Your task to perform on an android device: Go to Reddit.com Image 0: 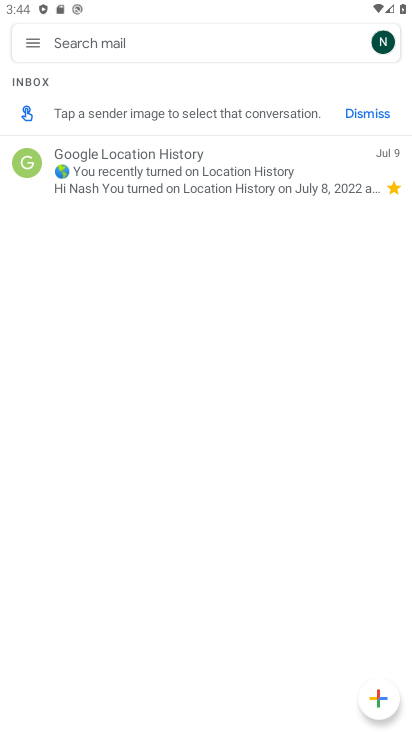
Step 0: press home button
Your task to perform on an android device: Go to Reddit.com Image 1: 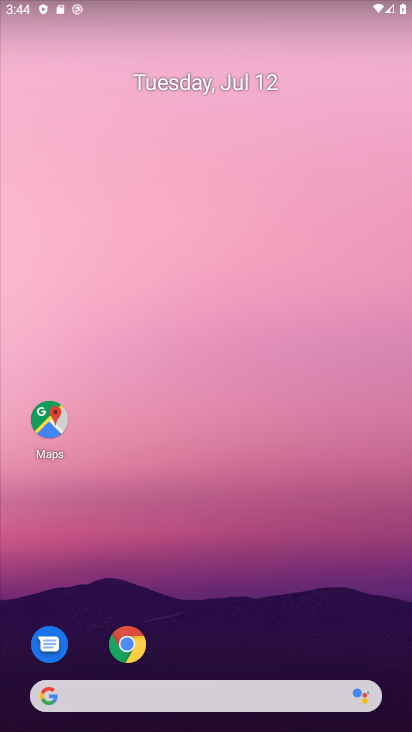
Step 1: click (121, 643)
Your task to perform on an android device: Go to Reddit.com Image 2: 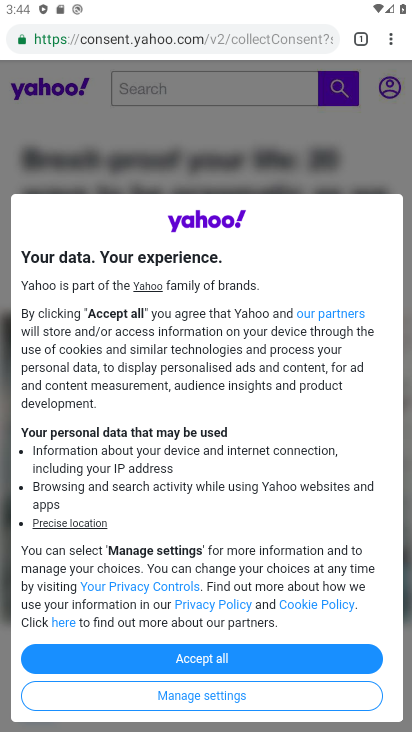
Step 2: click (212, 41)
Your task to perform on an android device: Go to Reddit.com Image 3: 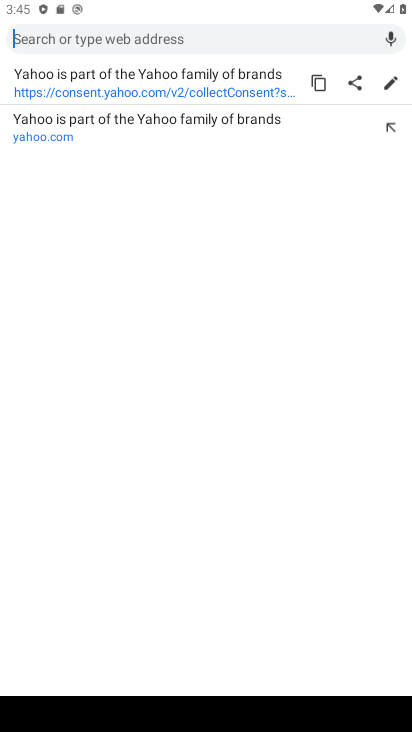
Step 3: type "reddit.com"
Your task to perform on an android device: Go to Reddit.com Image 4: 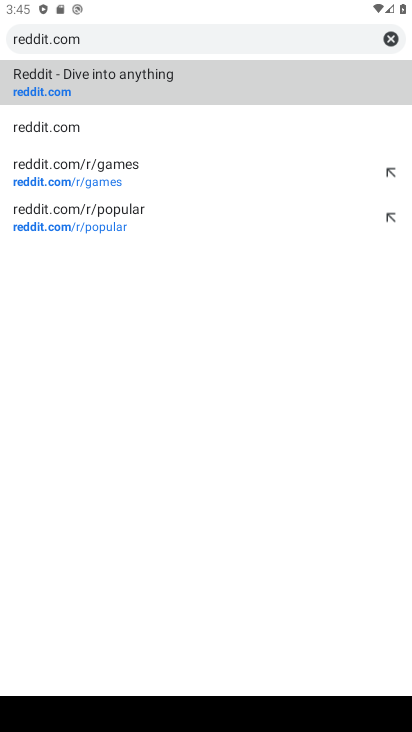
Step 4: click (181, 69)
Your task to perform on an android device: Go to Reddit.com Image 5: 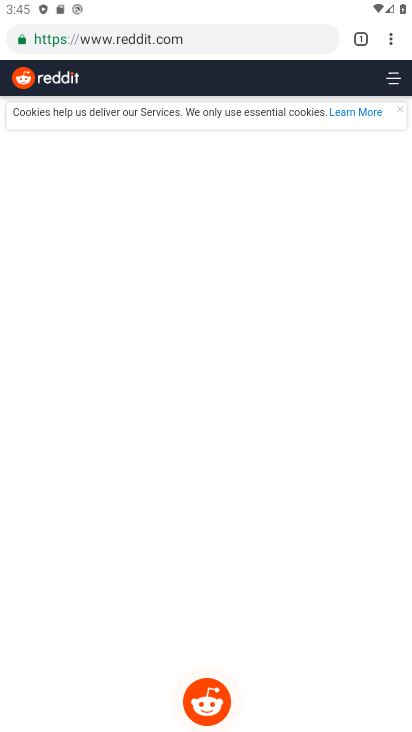
Step 5: task complete